Your task to perform on an android device: set an alarm Image 0: 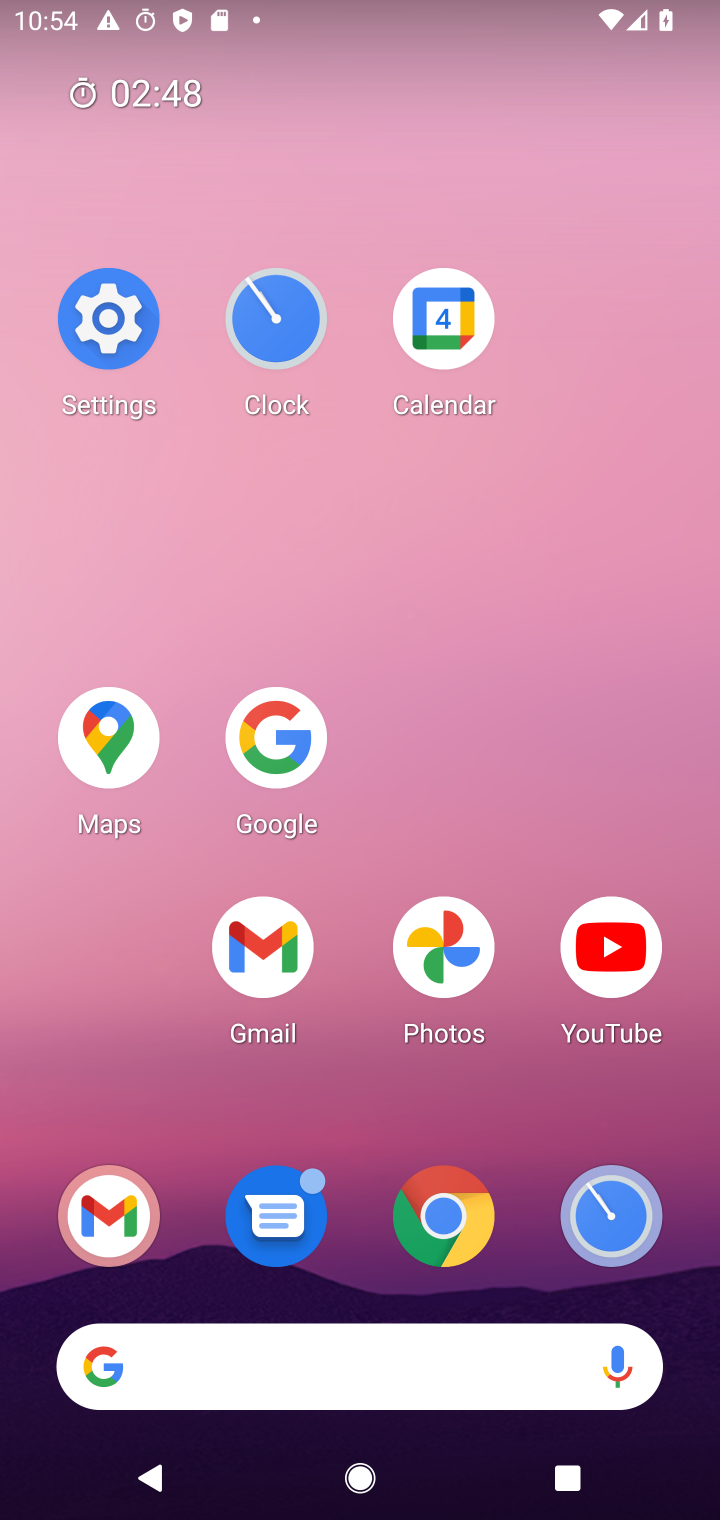
Step 0: click (641, 1210)
Your task to perform on an android device: set an alarm Image 1: 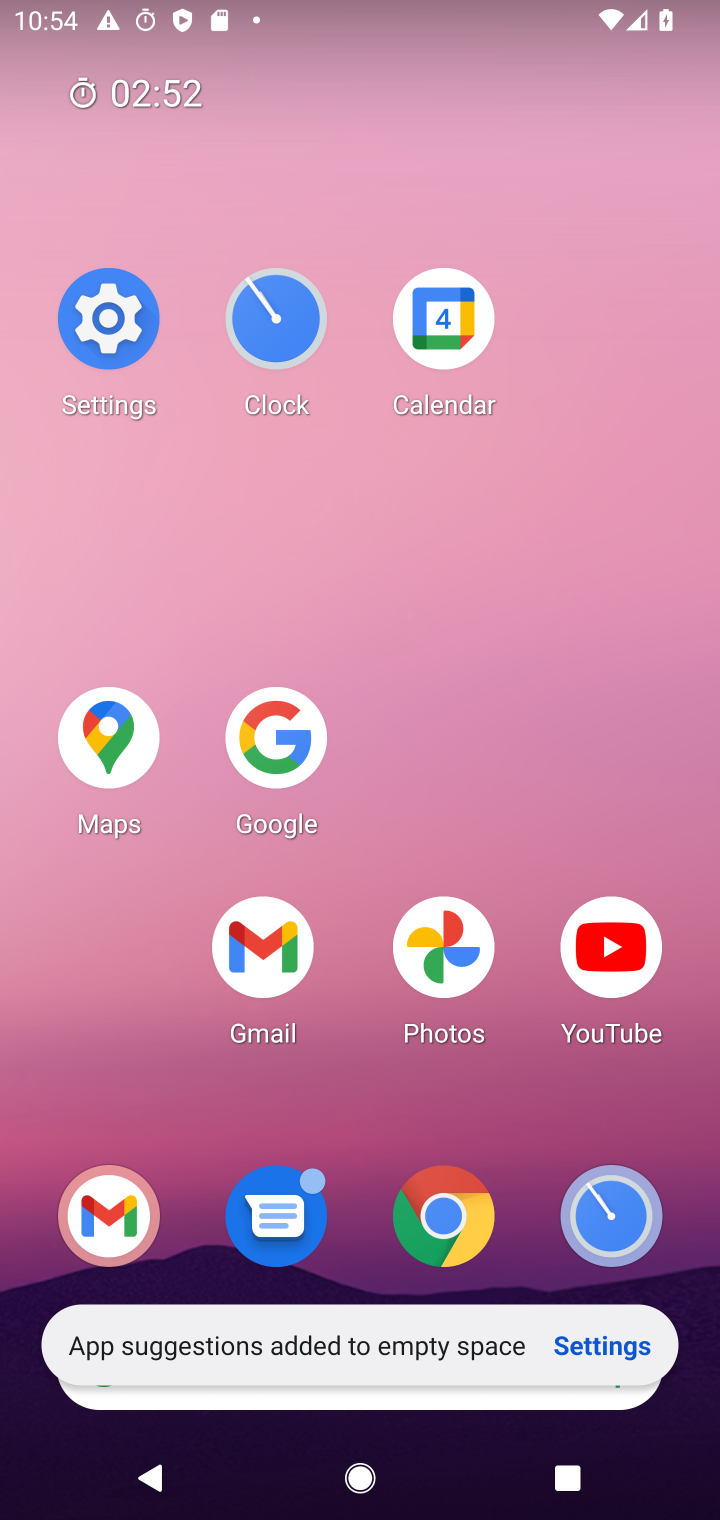
Step 1: click (625, 1218)
Your task to perform on an android device: set an alarm Image 2: 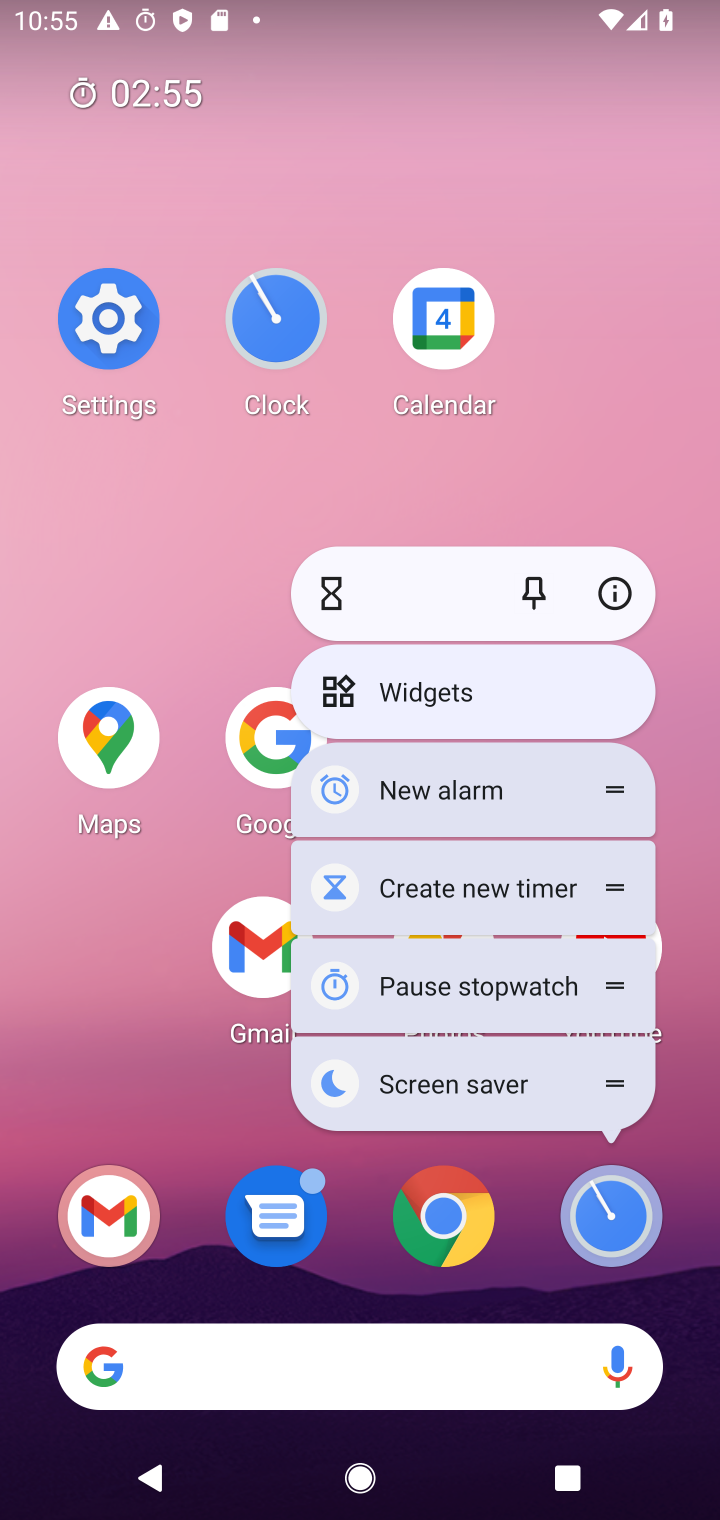
Step 2: click (618, 1194)
Your task to perform on an android device: set an alarm Image 3: 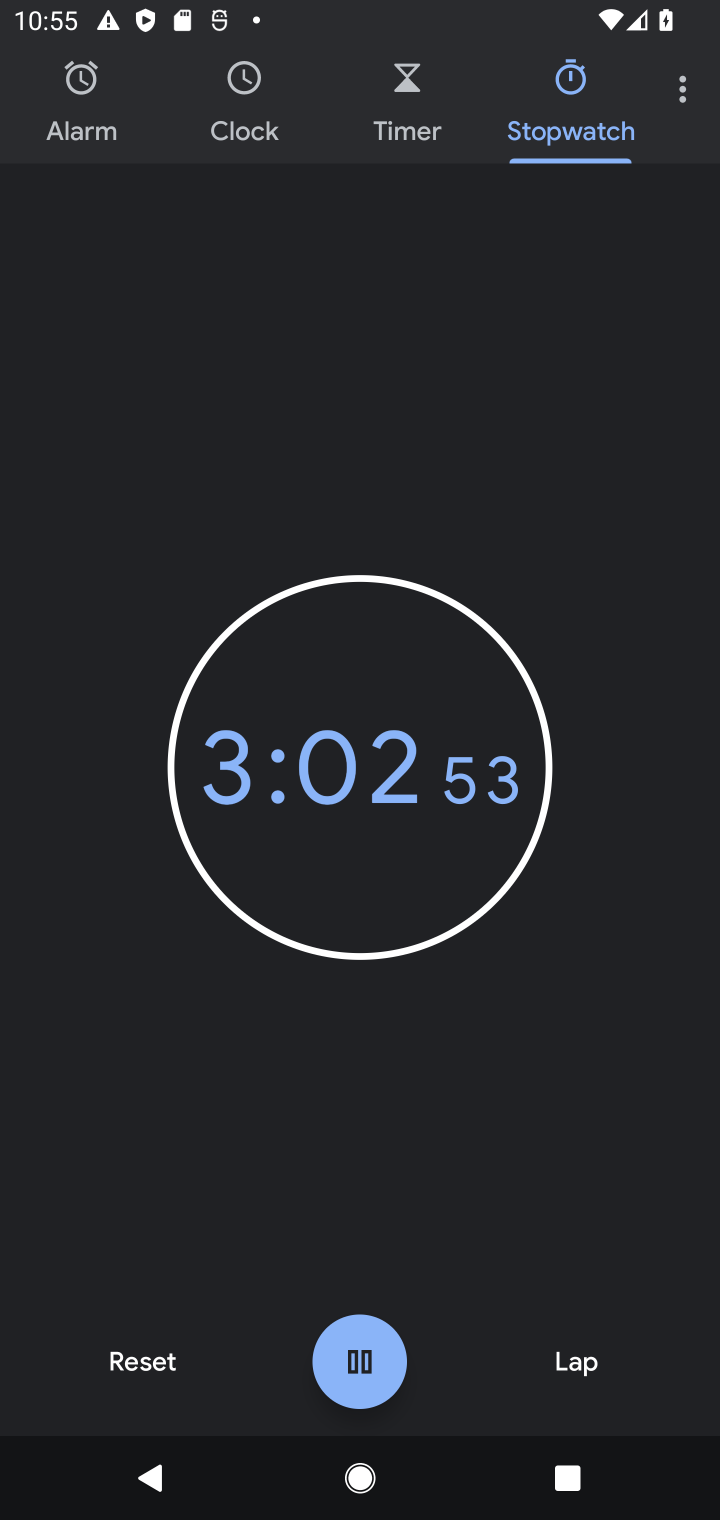
Step 3: click (98, 139)
Your task to perform on an android device: set an alarm Image 4: 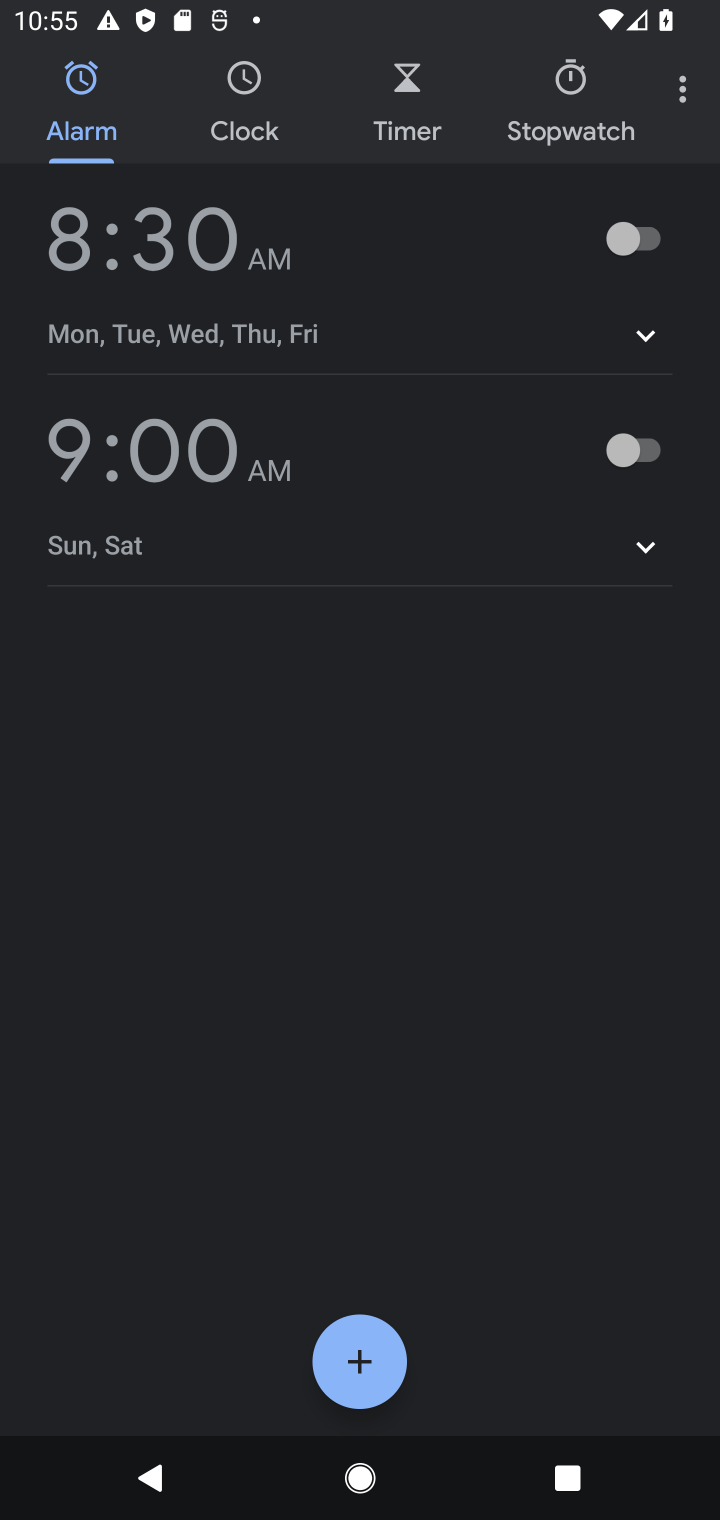
Step 4: click (623, 250)
Your task to perform on an android device: set an alarm Image 5: 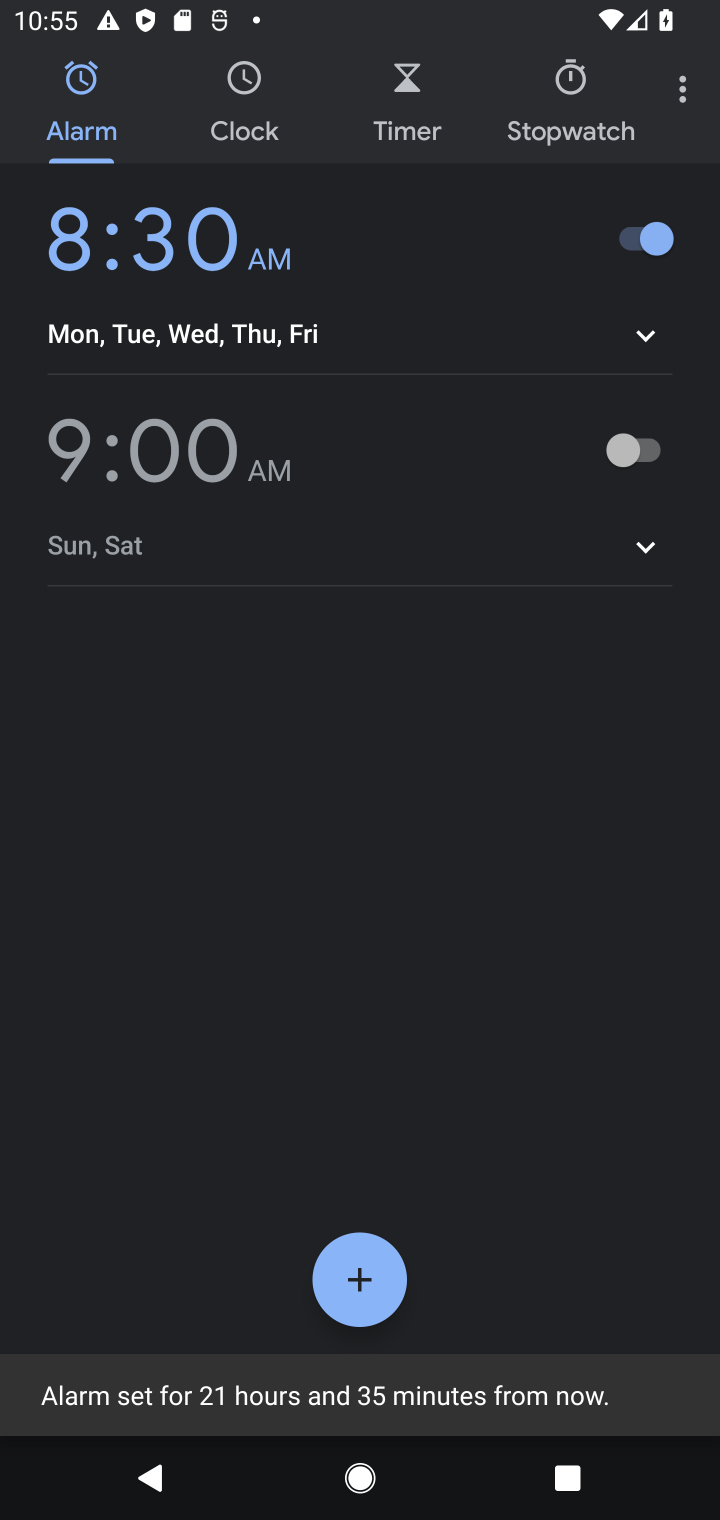
Step 5: task complete